Your task to perform on an android device: change notification settings in the gmail app Image 0: 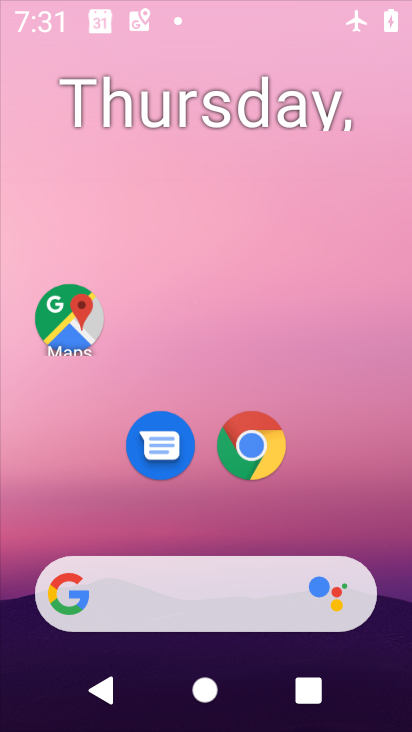
Step 0: drag from (393, 668) to (406, 610)
Your task to perform on an android device: change notification settings in the gmail app Image 1: 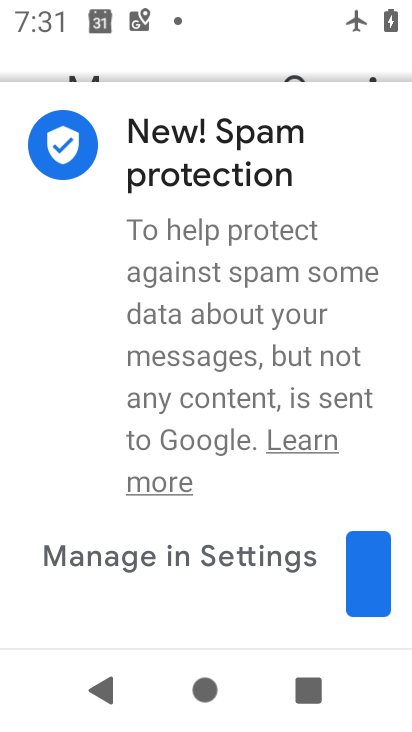
Step 1: press home button
Your task to perform on an android device: change notification settings in the gmail app Image 2: 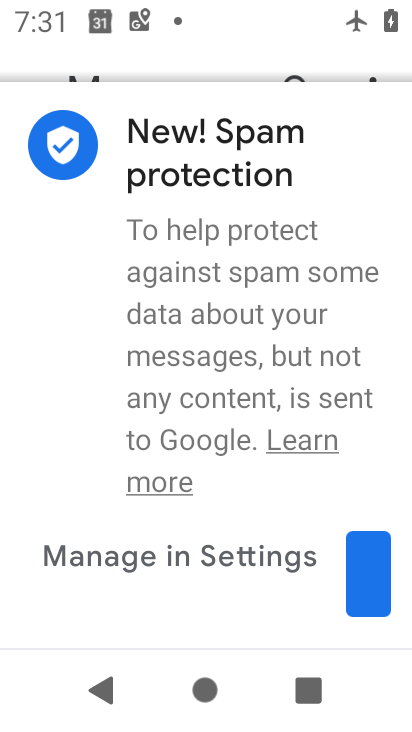
Step 2: click (406, 610)
Your task to perform on an android device: change notification settings in the gmail app Image 3: 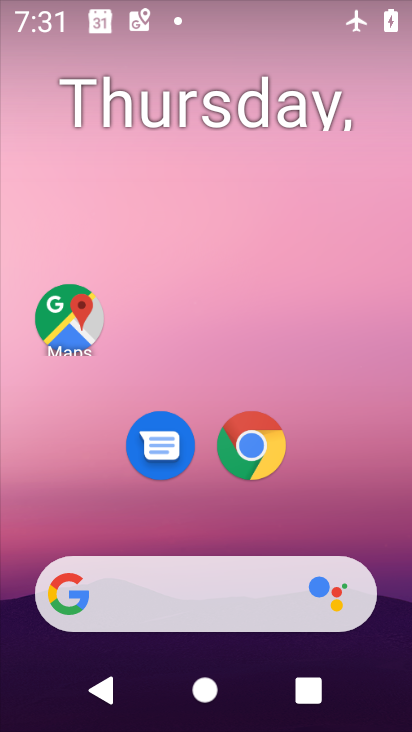
Step 3: drag from (408, 520) to (406, 302)
Your task to perform on an android device: change notification settings in the gmail app Image 4: 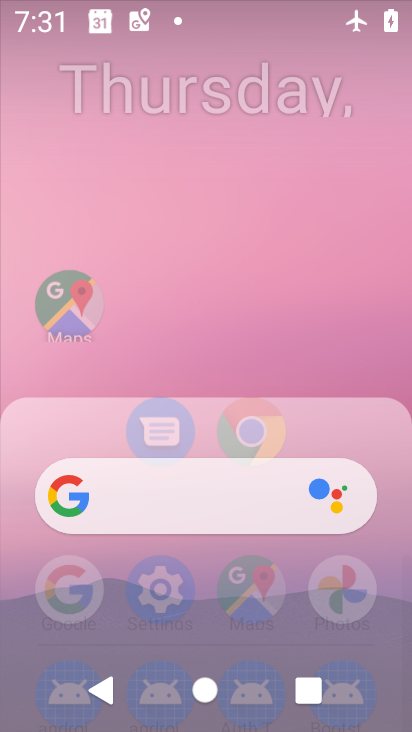
Step 4: click (322, 38)
Your task to perform on an android device: change notification settings in the gmail app Image 5: 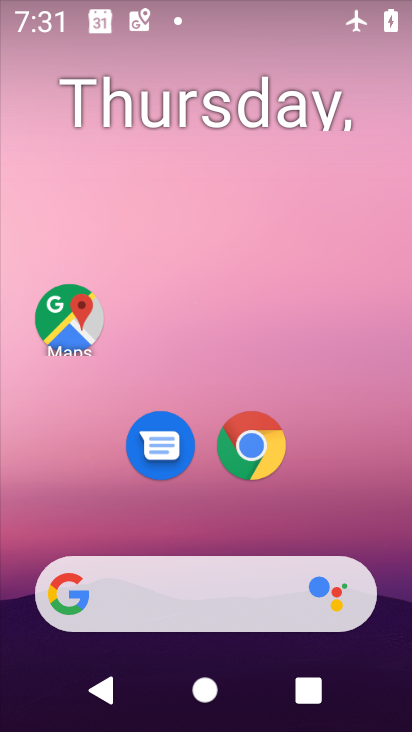
Step 5: drag from (388, 643) to (332, 28)
Your task to perform on an android device: change notification settings in the gmail app Image 6: 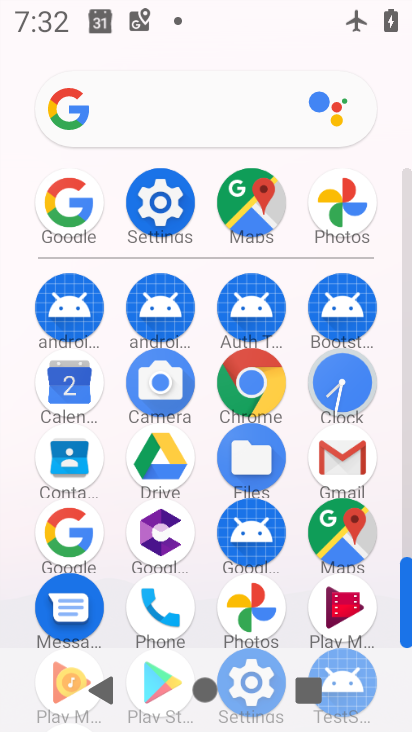
Step 6: click (338, 469)
Your task to perform on an android device: change notification settings in the gmail app Image 7: 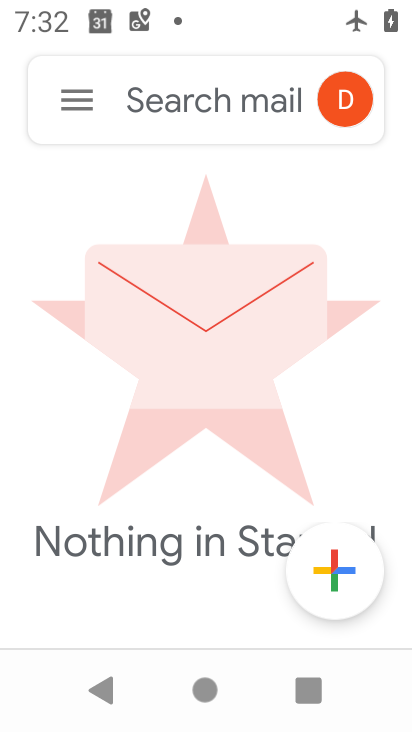
Step 7: click (84, 86)
Your task to perform on an android device: change notification settings in the gmail app Image 8: 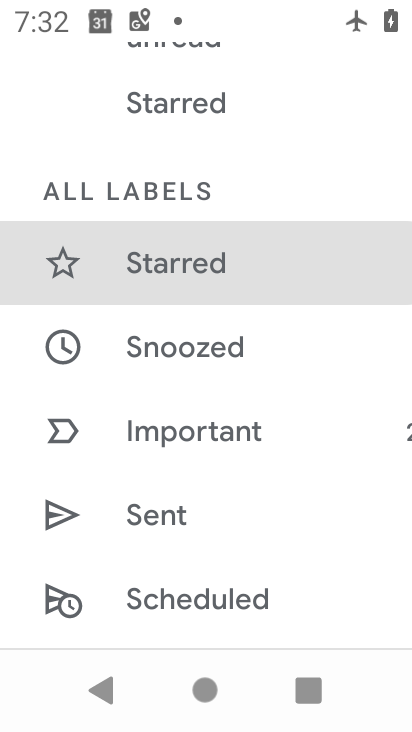
Step 8: drag from (133, 577) to (175, 40)
Your task to perform on an android device: change notification settings in the gmail app Image 9: 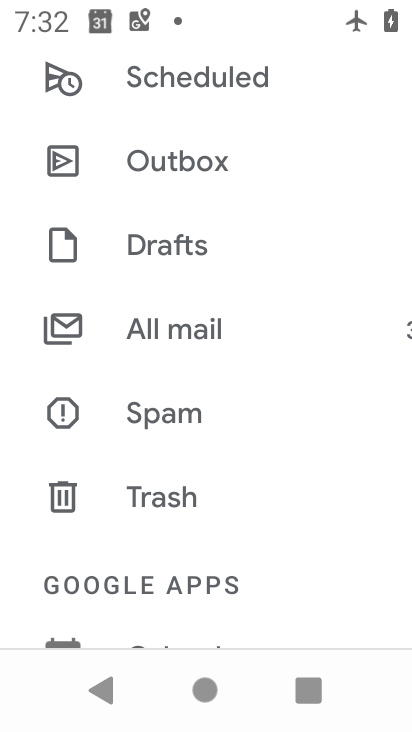
Step 9: drag from (166, 560) to (149, 76)
Your task to perform on an android device: change notification settings in the gmail app Image 10: 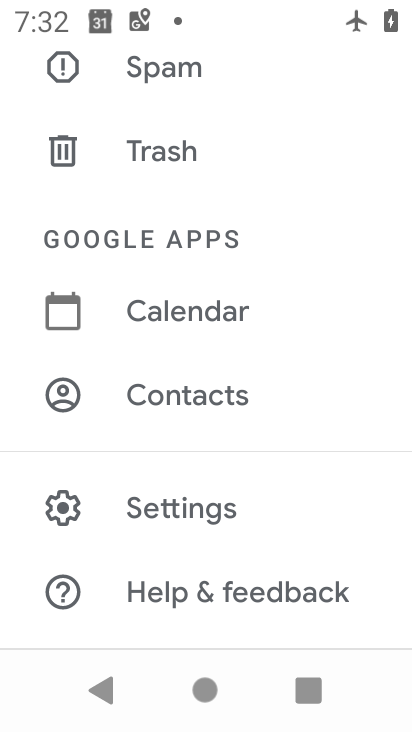
Step 10: click (150, 510)
Your task to perform on an android device: change notification settings in the gmail app Image 11: 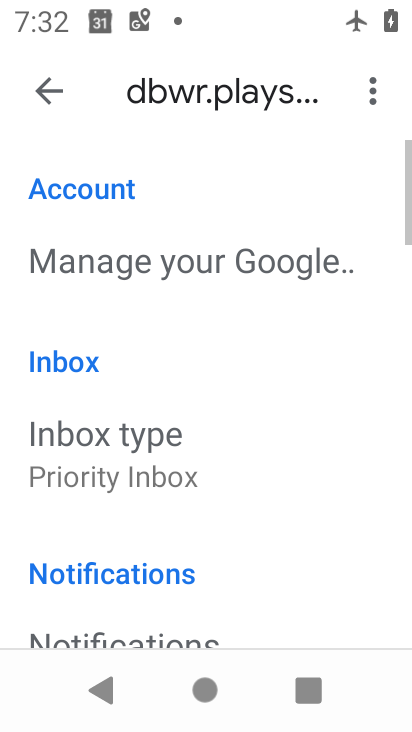
Step 11: click (133, 624)
Your task to perform on an android device: change notification settings in the gmail app Image 12: 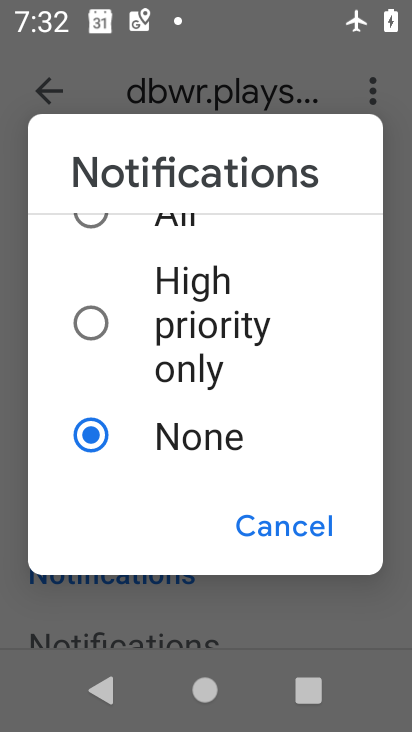
Step 12: click (92, 218)
Your task to perform on an android device: change notification settings in the gmail app Image 13: 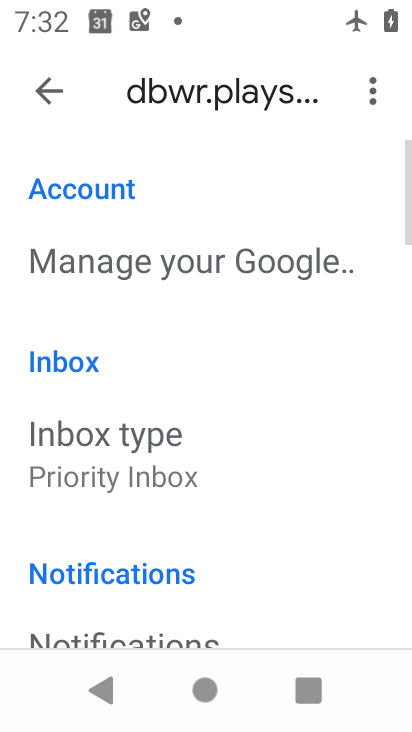
Step 13: task complete